Your task to perform on an android device: open chrome privacy settings Image 0: 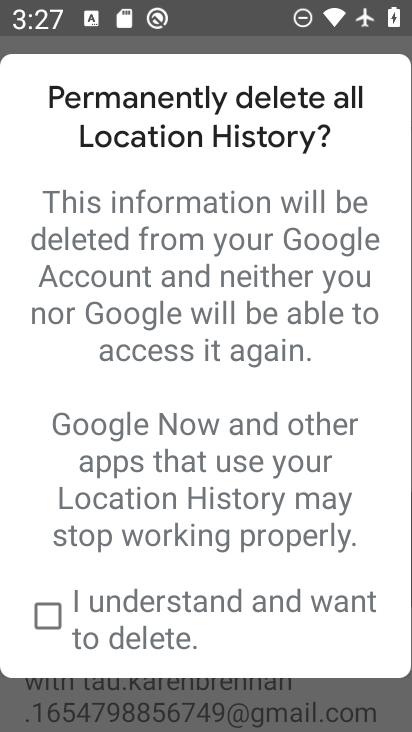
Step 0: press home button
Your task to perform on an android device: open chrome privacy settings Image 1: 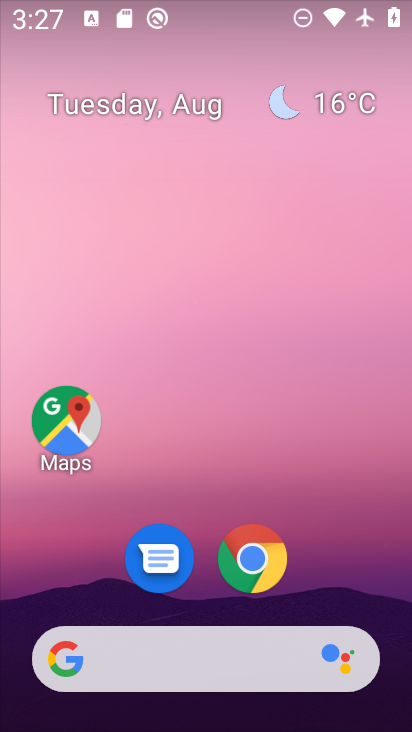
Step 1: drag from (197, 498) to (184, 125)
Your task to perform on an android device: open chrome privacy settings Image 2: 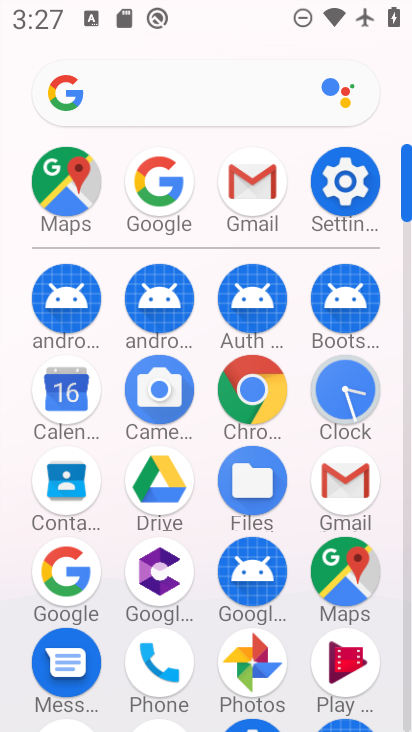
Step 2: click (334, 180)
Your task to perform on an android device: open chrome privacy settings Image 3: 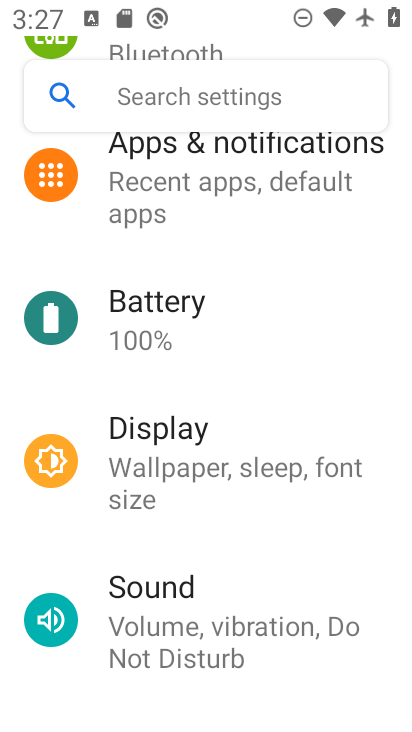
Step 3: press home button
Your task to perform on an android device: open chrome privacy settings Image 4: 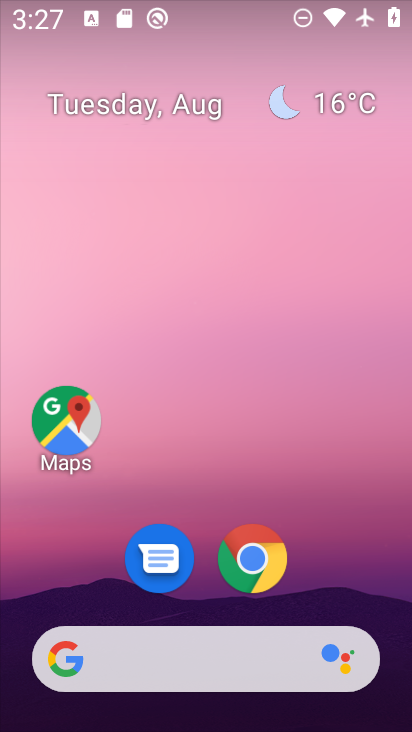
Step 4: click (265, 546)
Your task to perform on an android device: open chrome privacy settings Image 5: 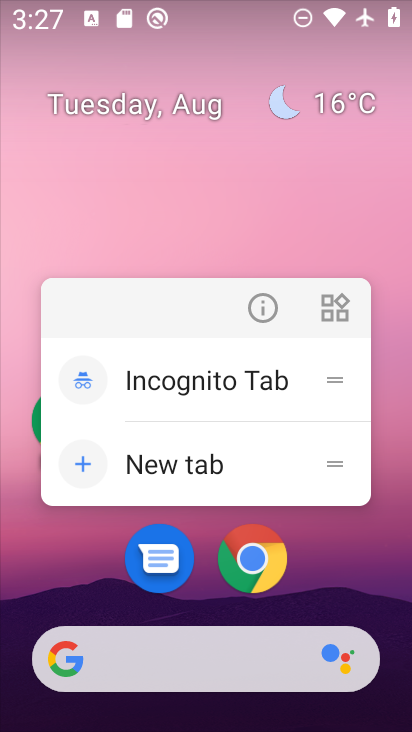
Step 5: click (265, 546)
Your task to perform on an android device: open chrome privacy settings Image 6: 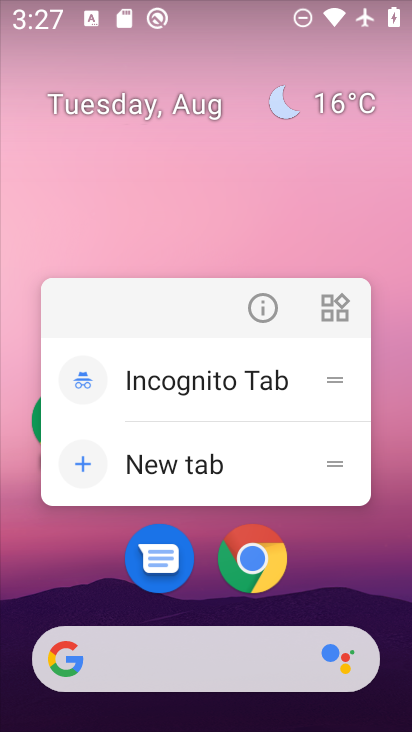
Step 6: click (265, 546)
Your task to perform on an android device: open chrome privacy settings Image 7: 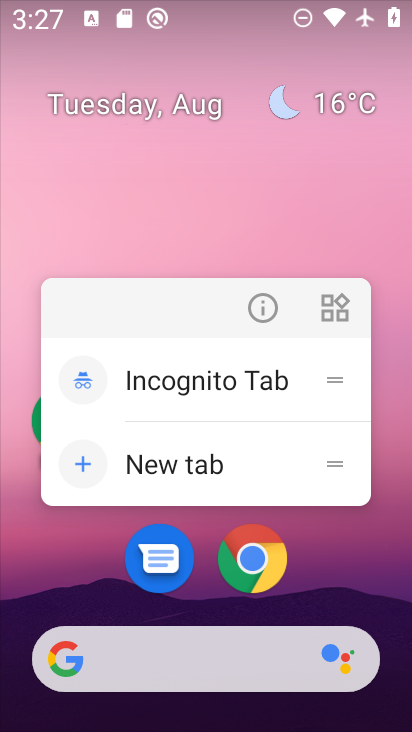
Step 7: click (265, 546)
Your task to perform on an android device: open chrome privacy settings Image 8: 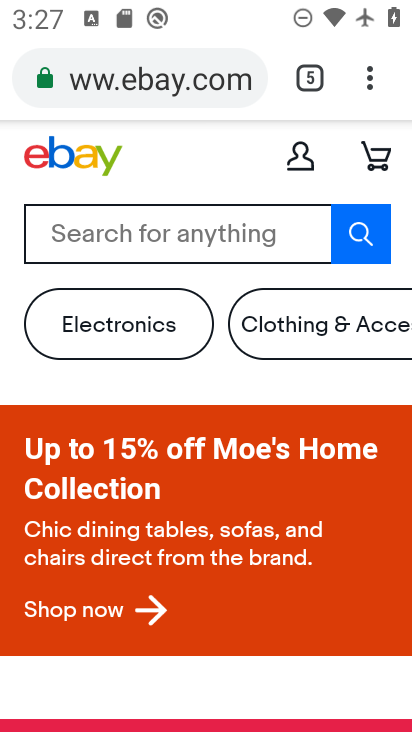
Step 8: click (369, 65)
Your task to perform on an android device: open chrome privacy settings Image 9: 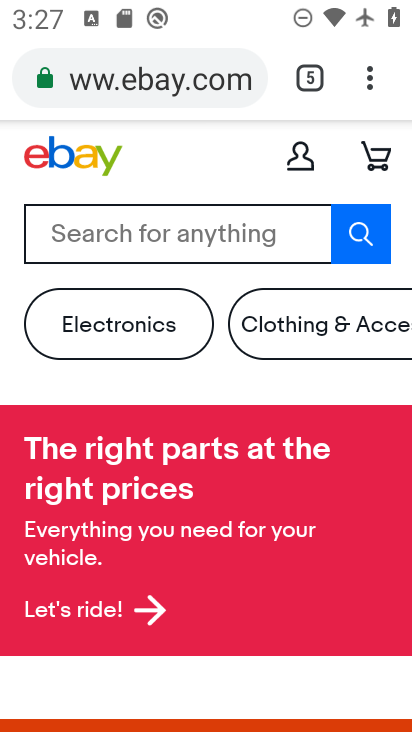
Step 9: click (369, 76)
Your task to perform on an android device: open chrome privacy settings Image 10: 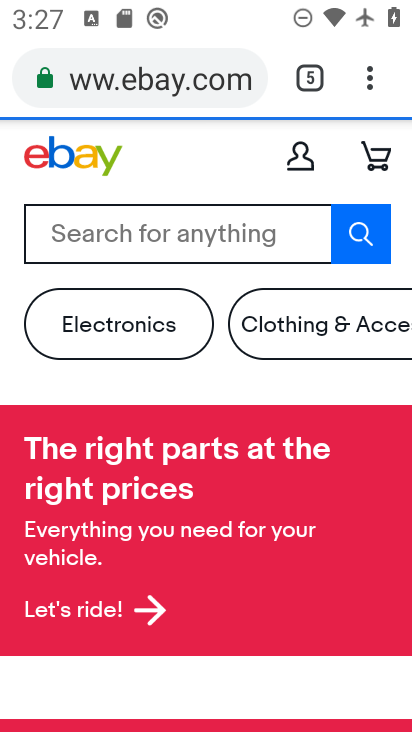
Step 10: drag from (369, 76) to (97, 621)
Your task to perform on an android device: open chrome privacy settings Image 11: 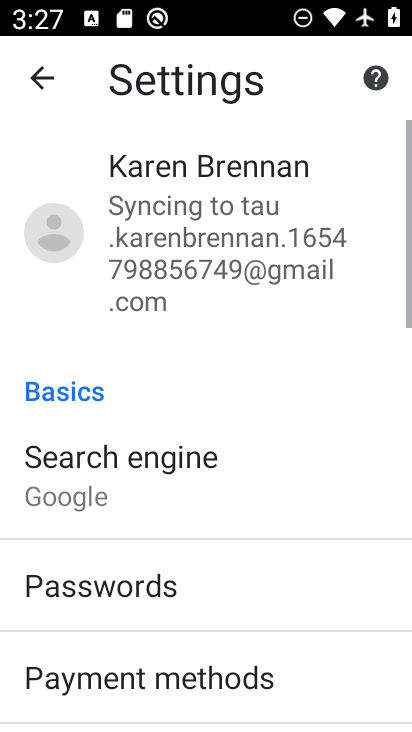
Step 11: drag from (178, 640) to (179, 269)
Your task to perform on an android device: open chrome privacy settings Image 12: 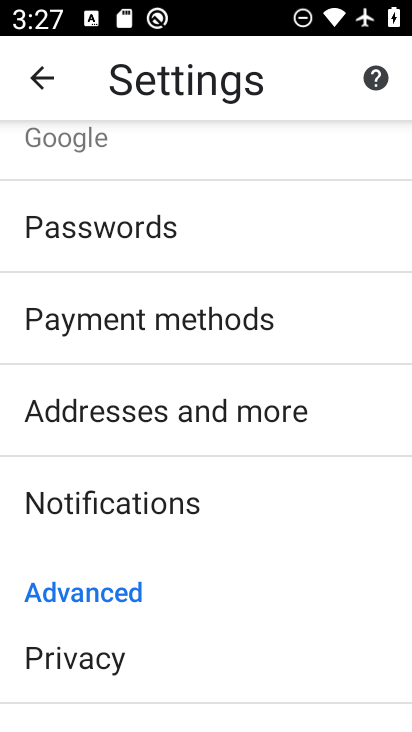
Step 12: click (174, 662)
Your task to perform on an android device: open chrome privacy settings Image 13: 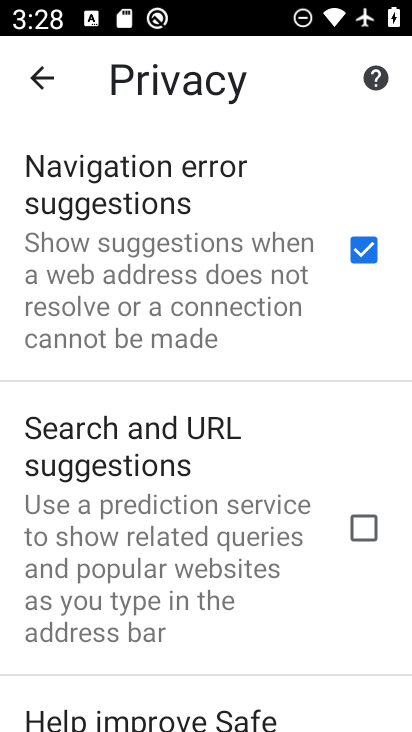
Step 13: task complete